Your task to perform on an android device: turn on notifications settings in the gmail app Image 0: 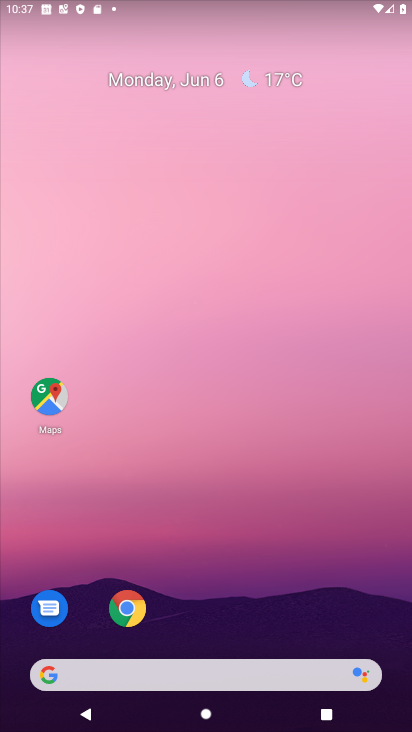
Step 0: drag from (237, 632) to (301, 154)
Your task to perform on an android device: turn on notifications settings in the gmail app Image 1: 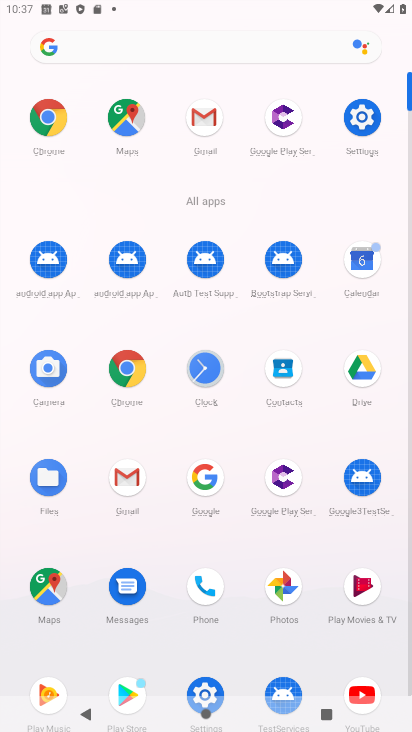
Step 1: click (212, 114)
Your task to perform on an android device: turn on notifications settings in the gmail app Image 2: 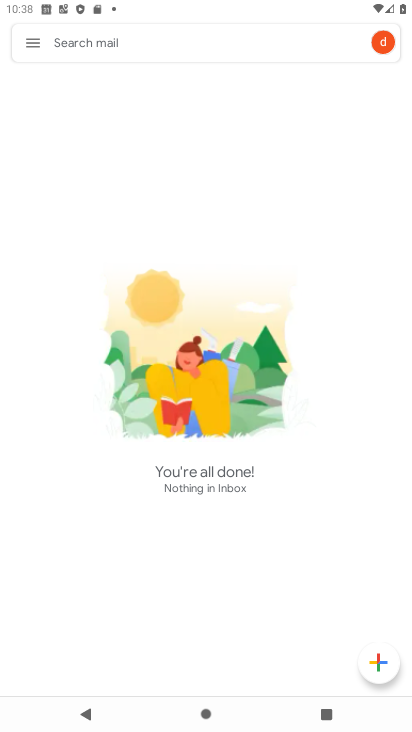
Step 2: click (39, 46)
Your task to perform on an android device: turn on notifications settings in the gmail app Image 3: 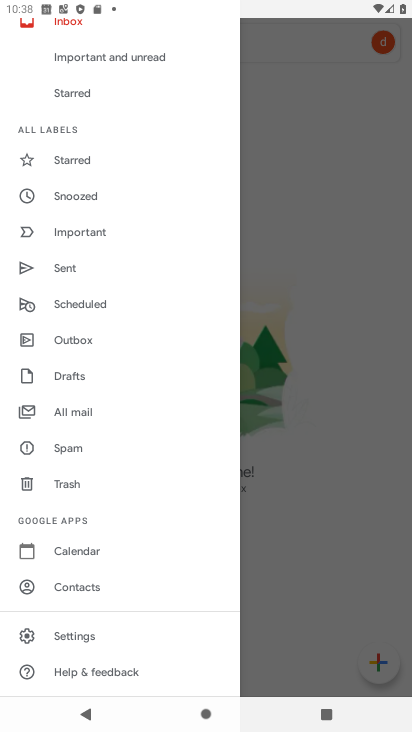
Step 3: click (116, 643)
Your task to perform on an android device: turn on notifications settings in the gmail app Image 4: 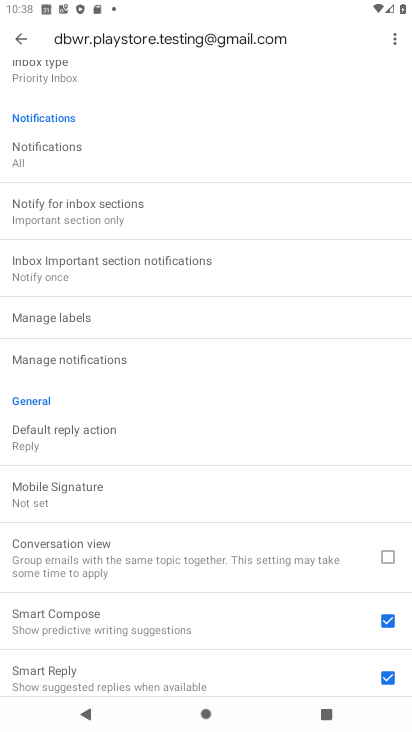
Step 4: click (160, 355)
Your task to perform on an android device: turn on notifications settings in the gmail app Image 5: 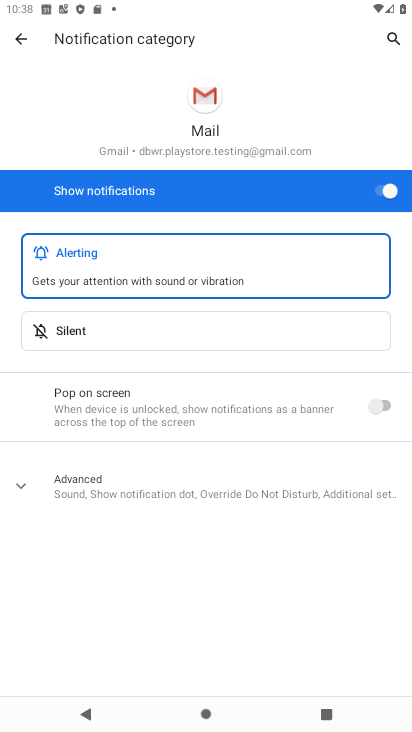
Step 5: click (362, 413)
Your task to perform on an android device: turn on notifications settings in the gmail app Image 6: 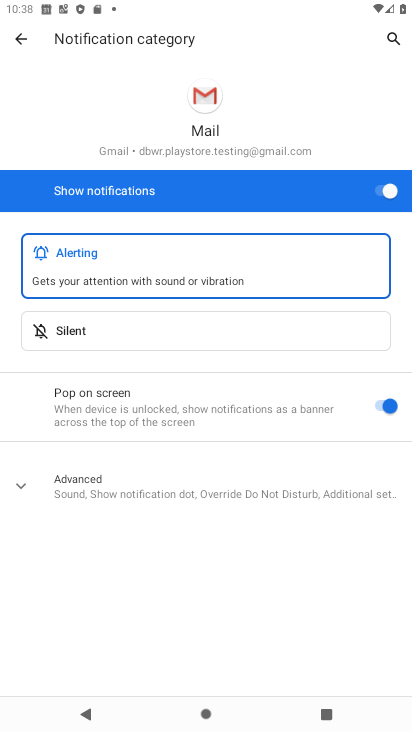
Step 6: task complete